Your task to perform on an android device: open app "Duolingo: language lessons" (install if not already installed) and go to login screen Image 0: 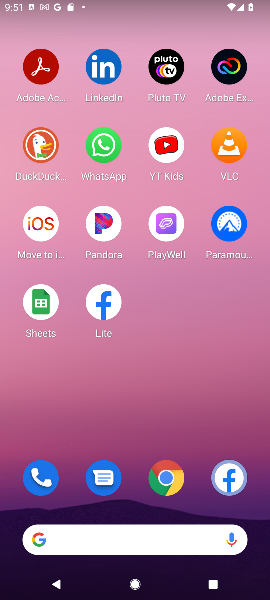
Step 0: drag from (132, 506) to (131, 130)
Your task to perform on an android device: open app "Duolingo: language lessons" (install if not already installed) and go to login screen Image 1: 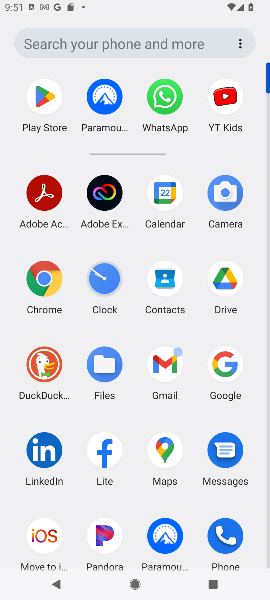
Step 1: click (63, 106)
Your task to perform on an android device: open app "Duolingo: language lessons" (install if not already installed) and go to login screen Image 2: 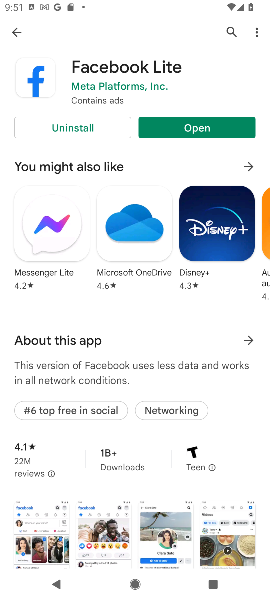
Step 2: click (224, 33)
Your task to perform on an android device: open app "Duolingo: language lessons" (install if not already installed) and go to login screen Image 3: 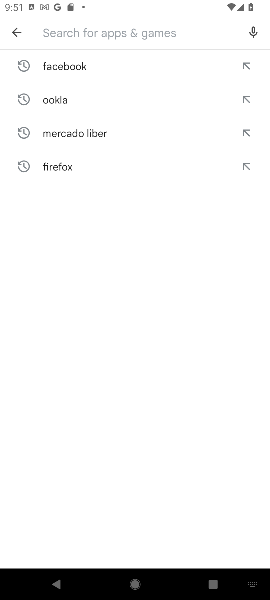
Step 3: type "duolingo"
Your task to perform on an android device: open app "Duolingo: language lessons" (install if not already installed) and go to login screen Image 4: 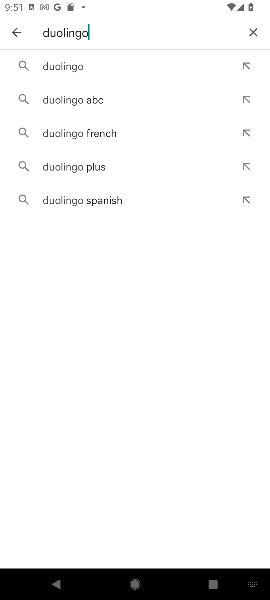
Step 4: click (75, 71)
Your task to perform on an android device: open app "Duolingo: language lessons" (install if not already installed) and go to login screen Image 5: 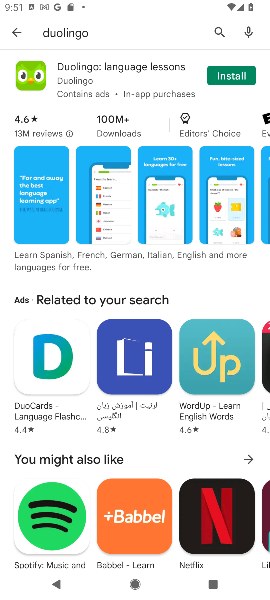
Step 5: click (228, 81)
Your task to perform on an android device: open app "Duolingo: language lessons" (install if not already installed) and go to login screen Image 6: 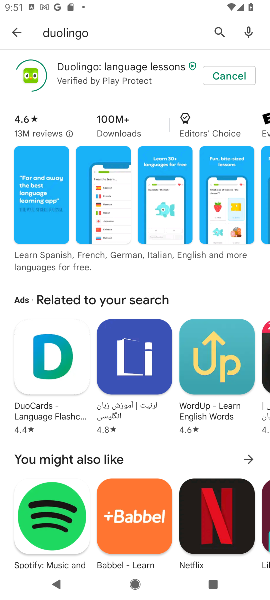
Step 6: task complete